Your task to perform on an android device: Go to Google Image 0: 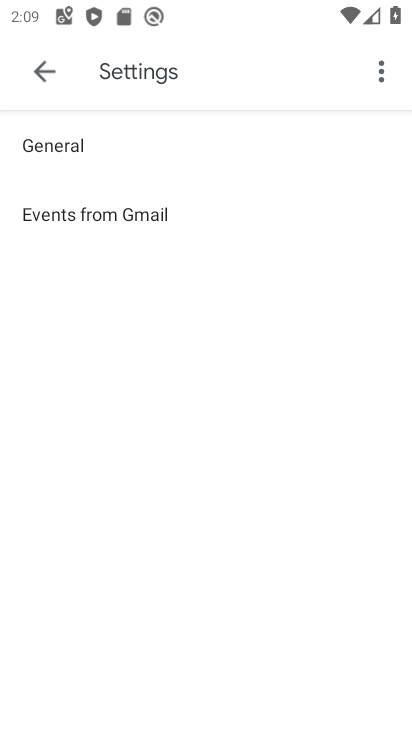
Step 0: press home button
Your task to perform on an android device: Go to Google Image 1: 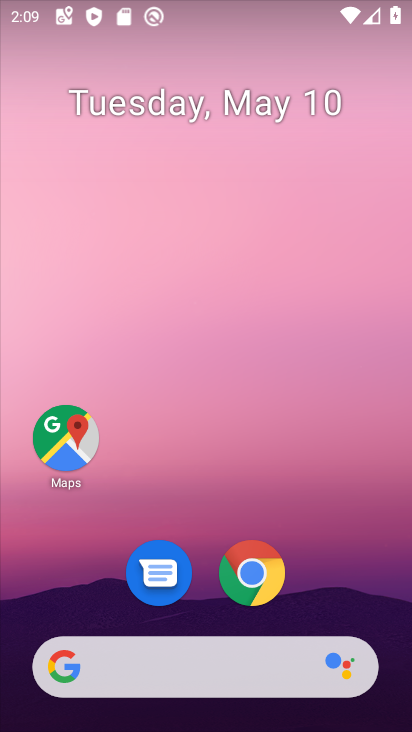
Step 1: drag from (261, 714) to (220, 187)
Your task to perform on an android device: Go to Google Image 2: 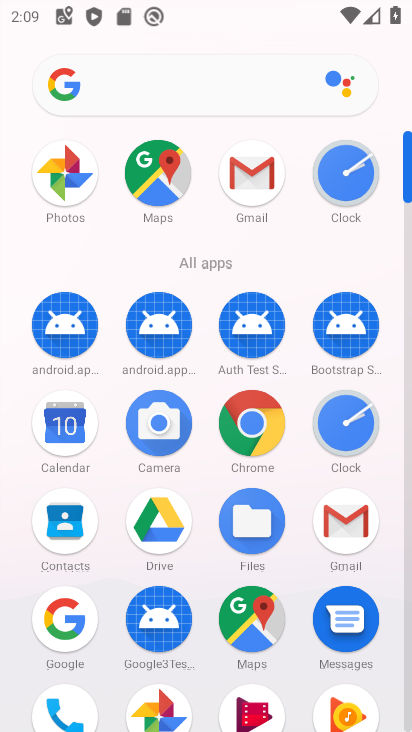
Step 2: click (62, 619)
Your task to perform on an android device: Go to Google Image 3: 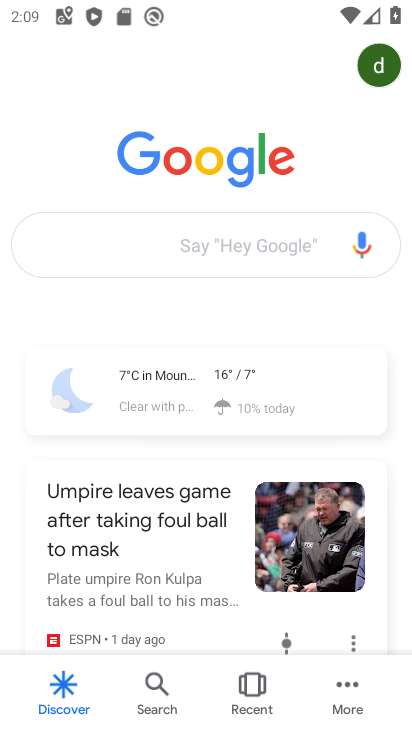
Step 3: task complete